Your task to perform on an android device: Add sony triple a to the cart on target, then select checkout. Image 0: 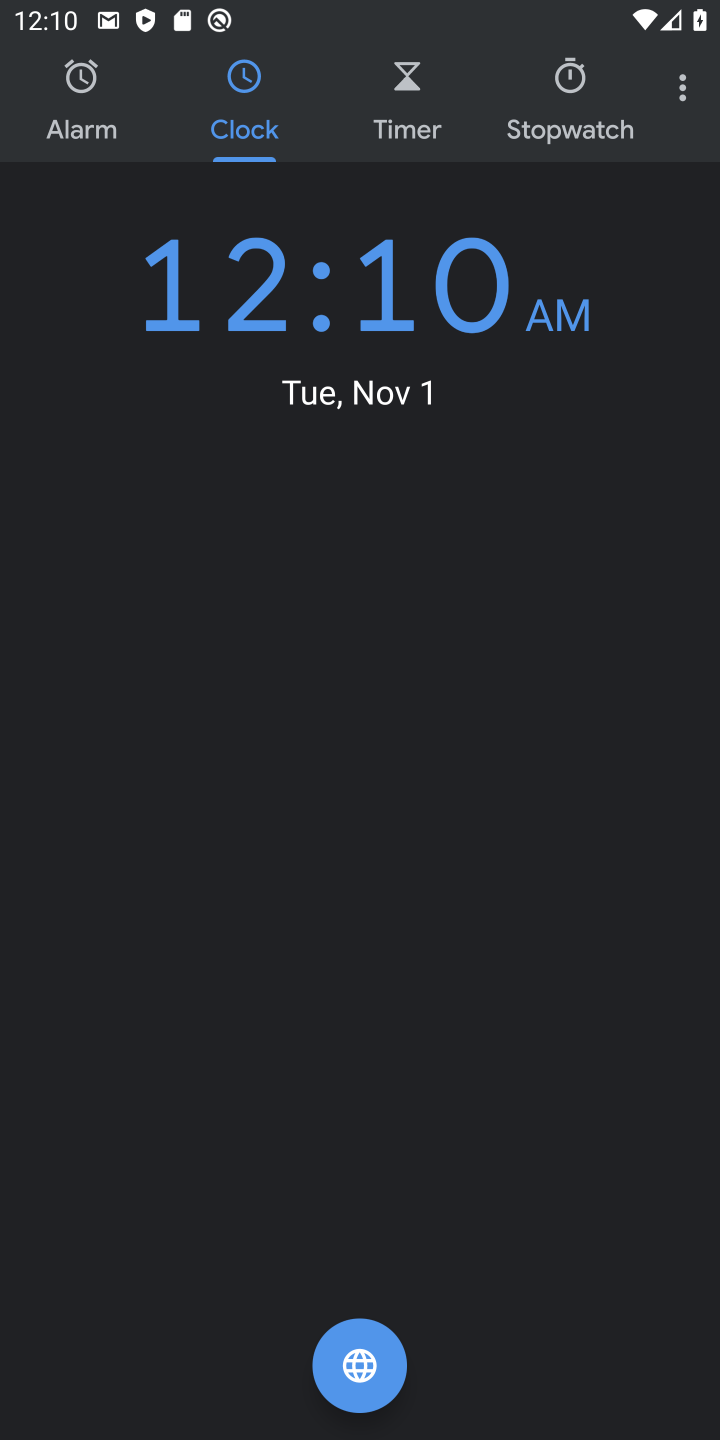
Step 0: press home button
Your task to perform on an android device: Add sony triple a to the cart on target, then select checkout. Image 1: 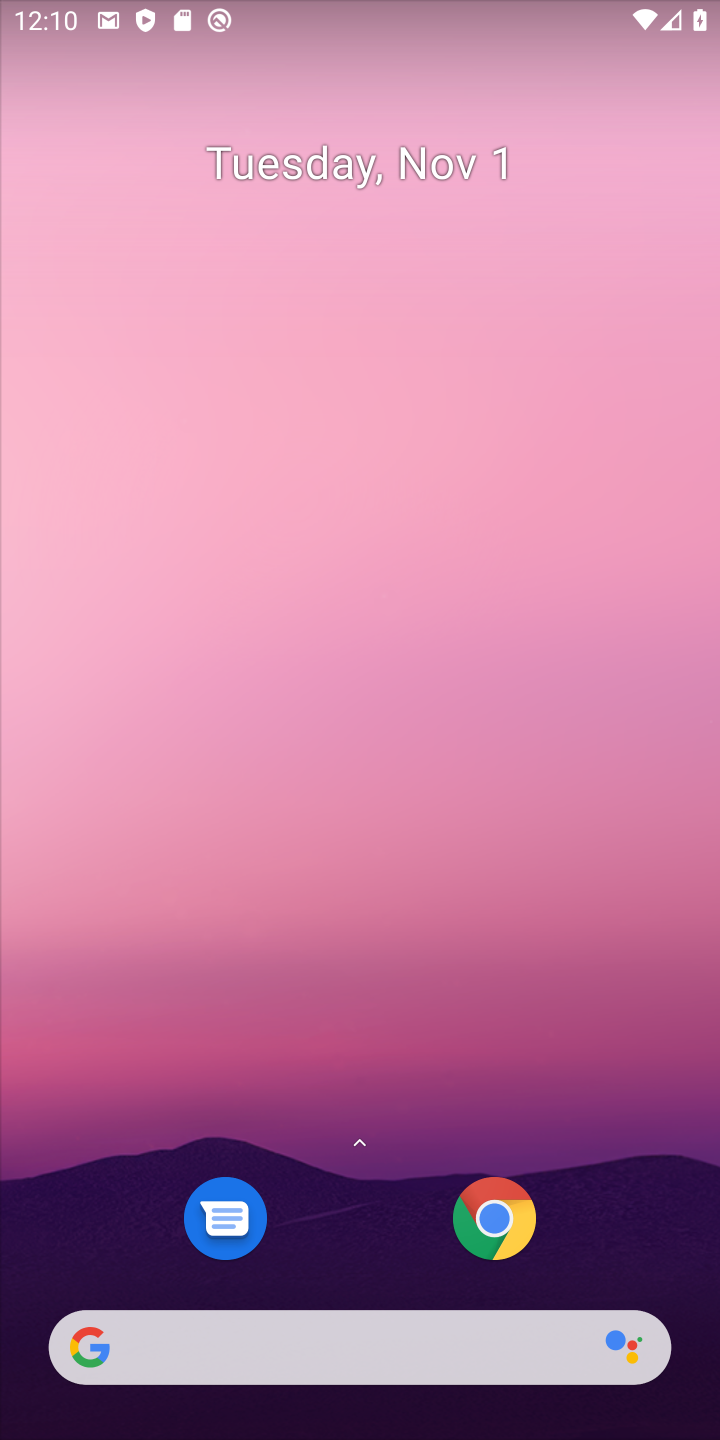
Step 1: drag from (382, 1222) to (520, 41)
Your task to perform on an android device: Add sony triple a to the cart on target, then select checkout. Image 2: 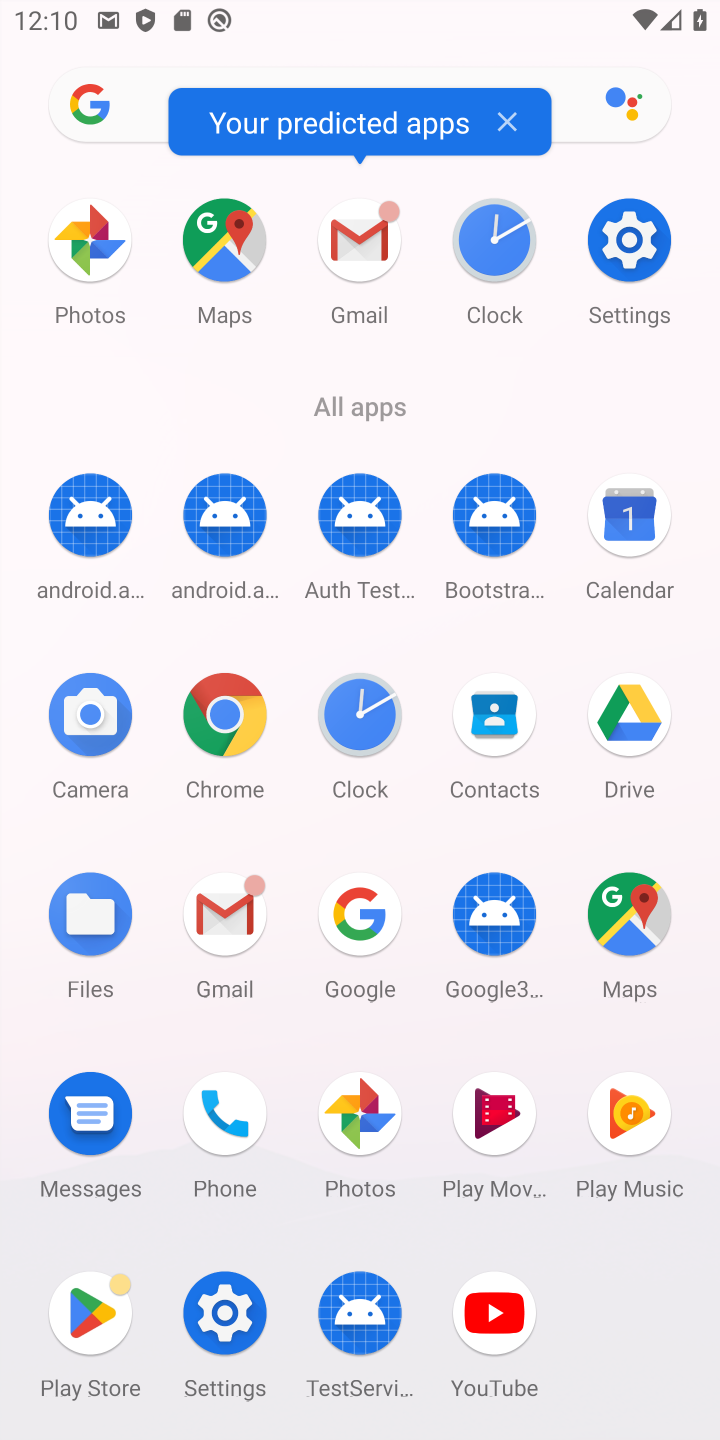
Step 2: click (233, 706)
Your task to perform on an android device: Add sony triple a to the cart on target, then select checkout. Image 3: 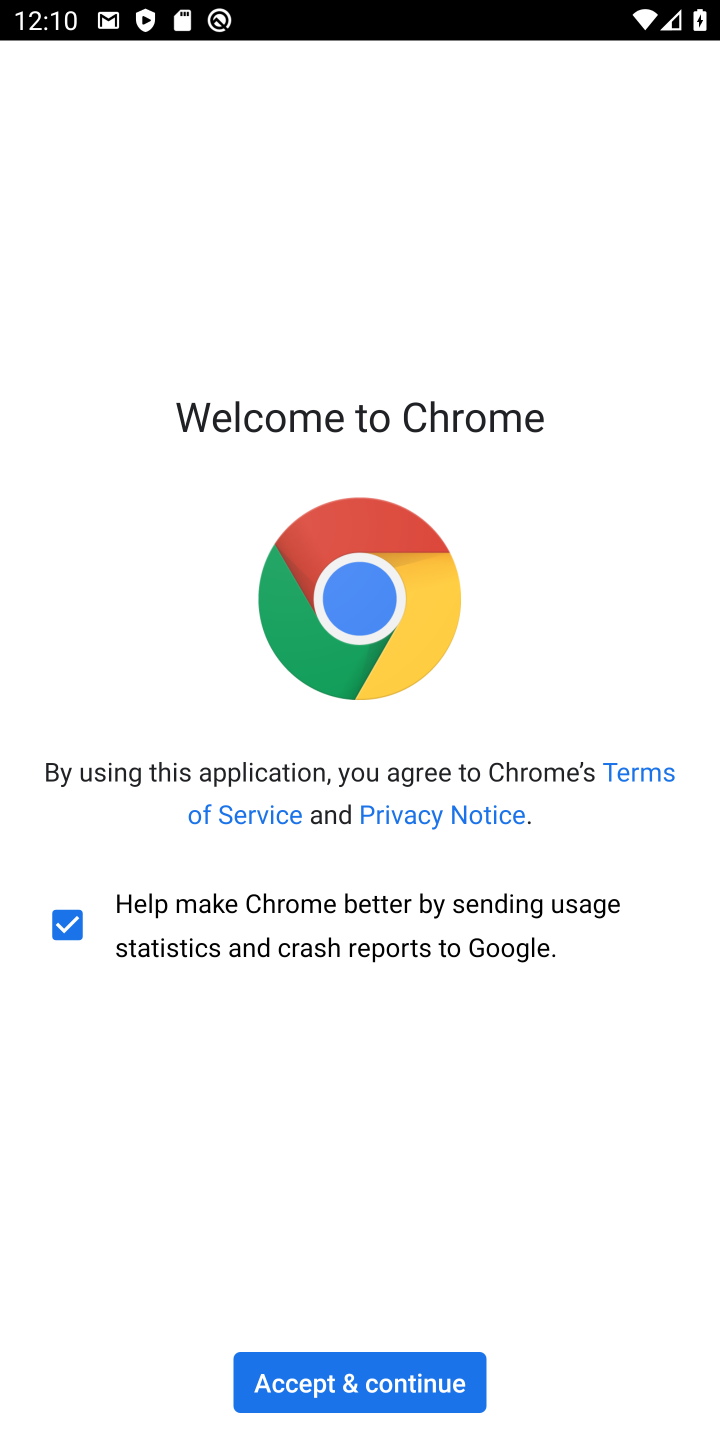
Step 3: click (436, 1379)
Your task to perform on an android device: Add sony triple a to the cart on target, then select checkout. Image 4: 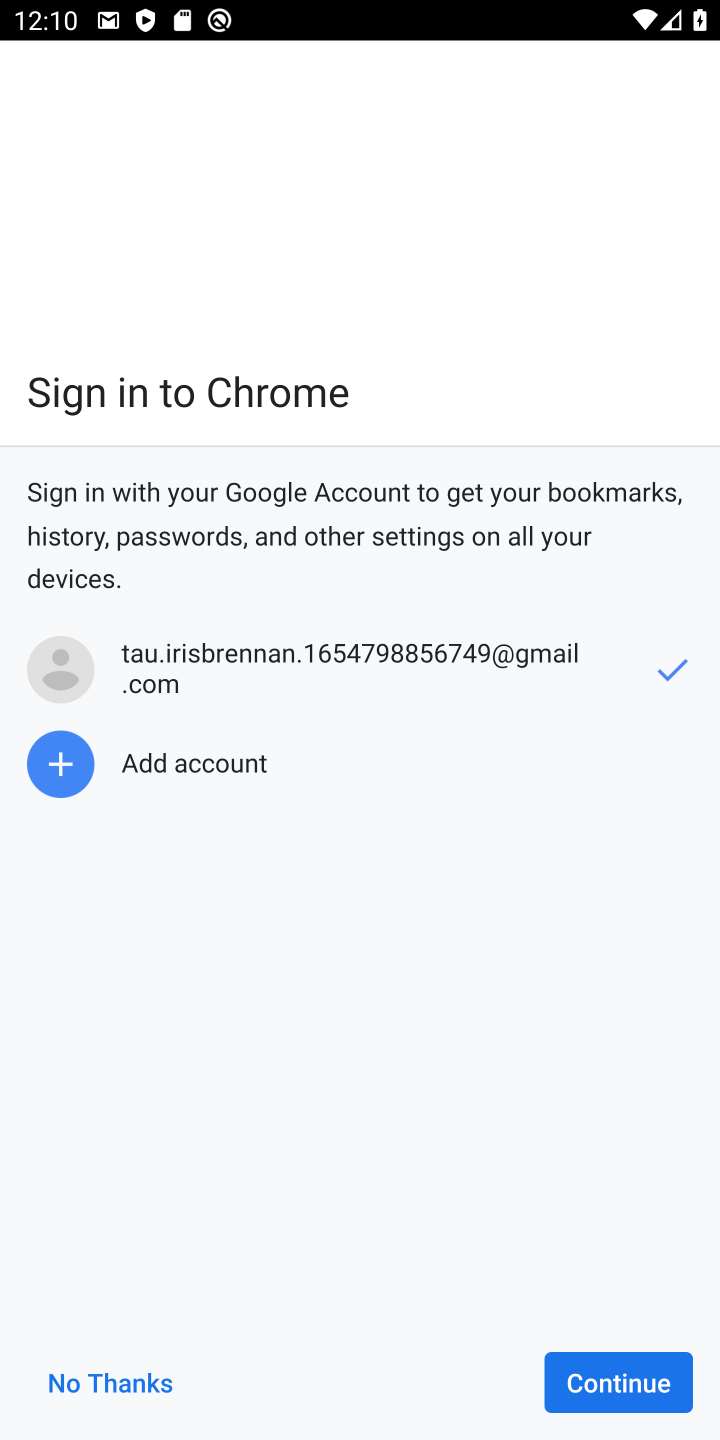
Step 4: click (658, 1384)
Your task to perform on an android device: Add sony triple a to the cart on target, then select checkout. Image 5: 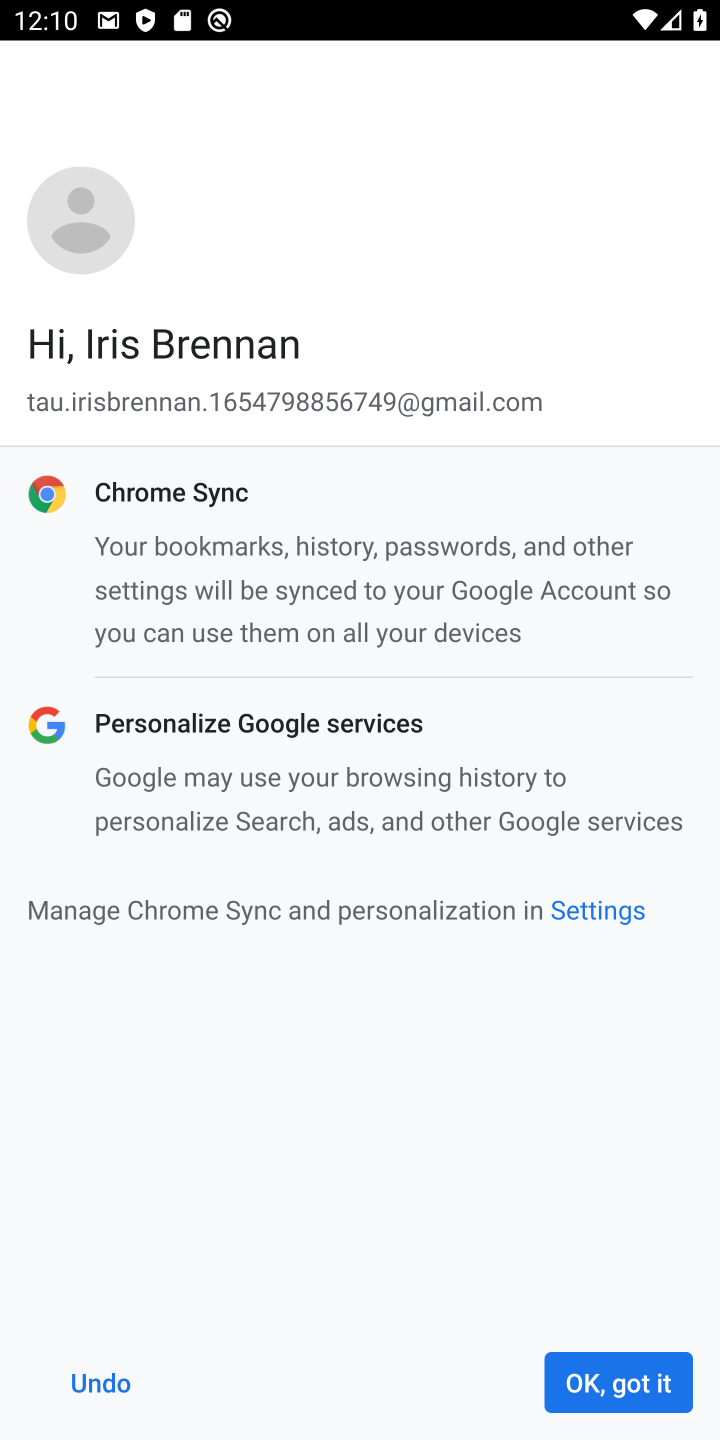
Step 5: click (658, 1384)
Your task to perform on an android device: Add sony triple a to the cart on target, then select checkout. Image 6: 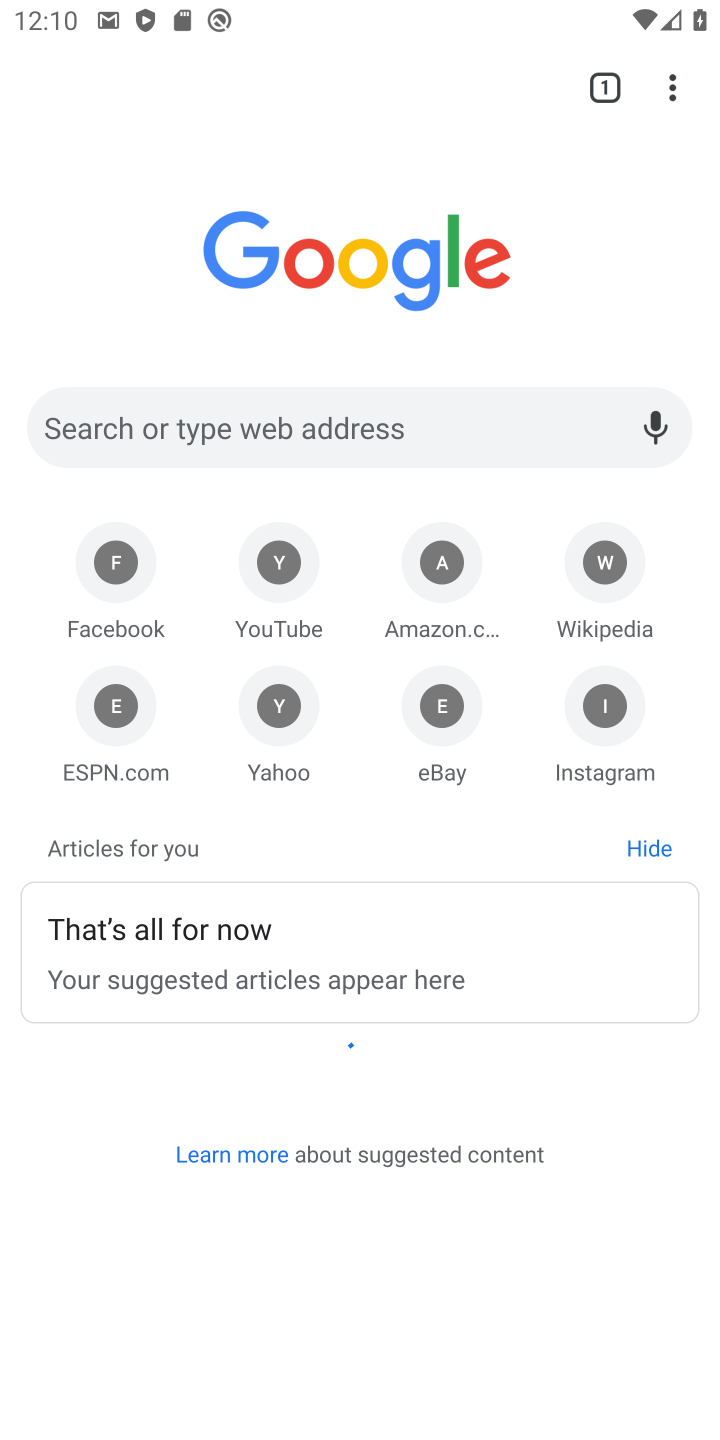
Step 6: click (334, 414)
Your task to perform on an android device: Add sony triple a to the cart on target, then select checkout. Image 7: 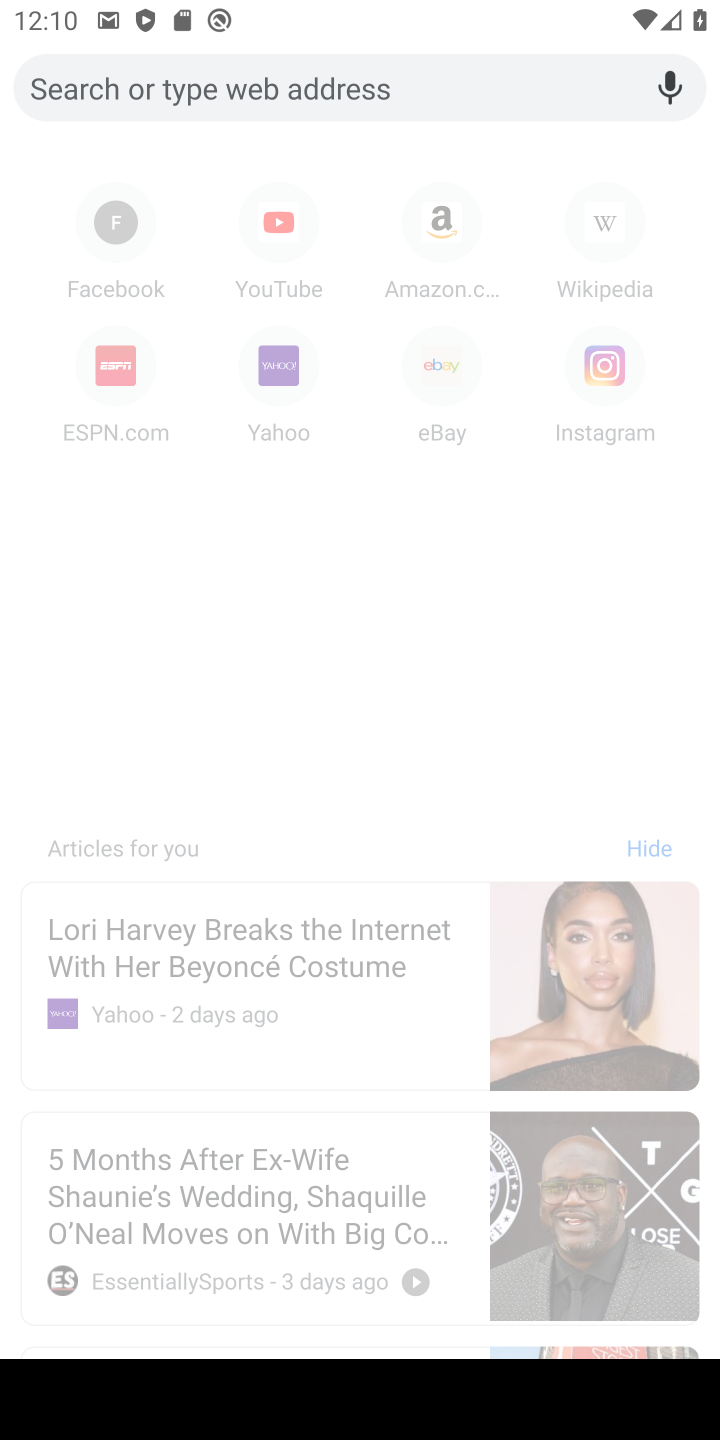
Step 7: type "target"
Your task to perform on an android device: Add sony triple a to the cart on target, then select checkout. Image 8: 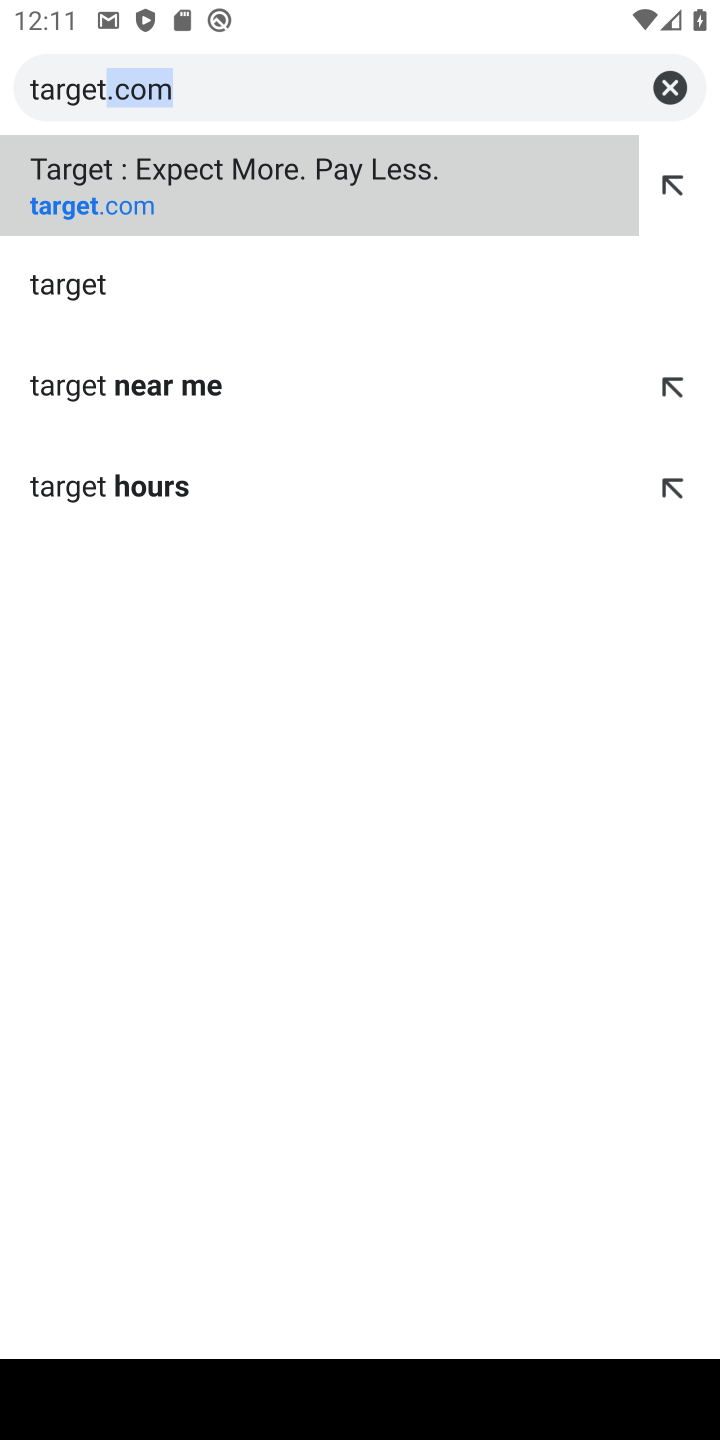
Step 8: click (120, 203)
Your task to perform on an android device: Add sony triple a to the cart on target, then select checkout. Image 9: 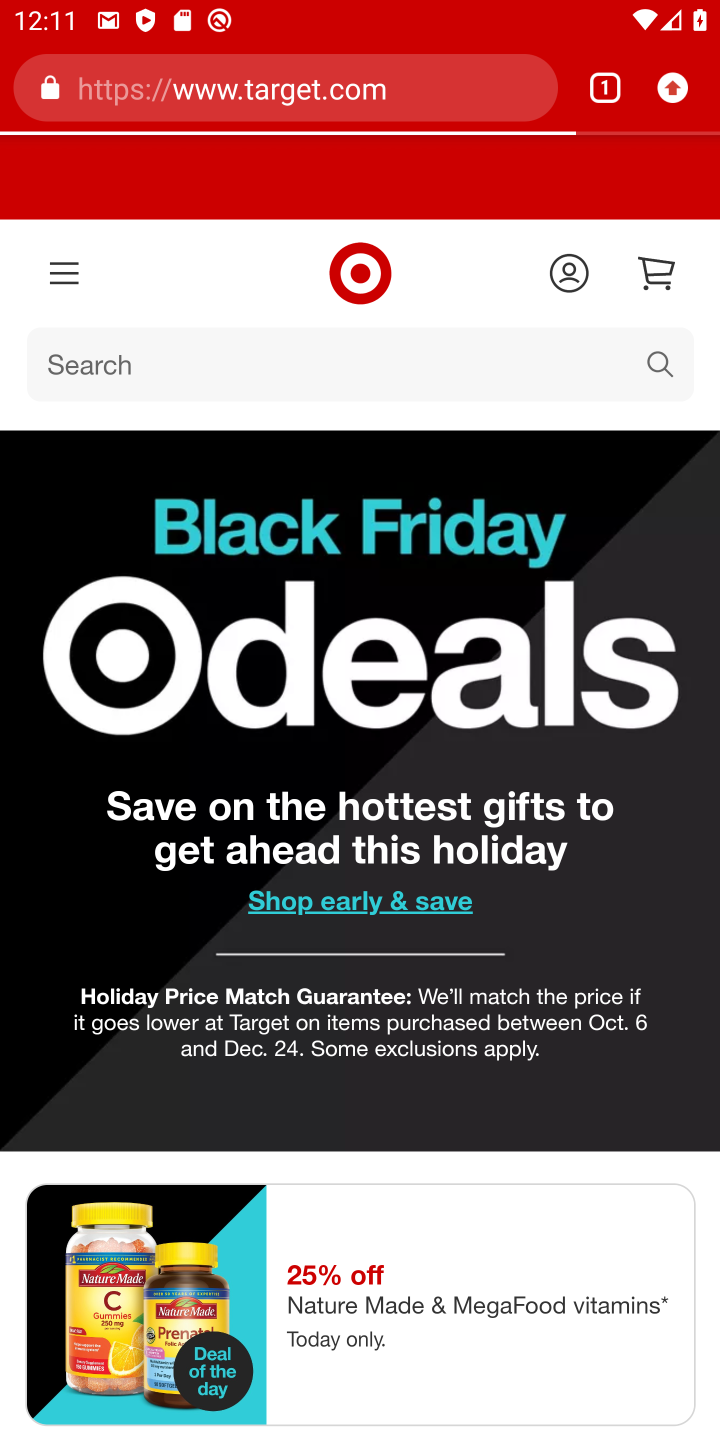
Step 9: drag from (421, 1062) to (366, 667)
Your task to perform on an android device: Add sony triple a to the cart on target, then select checkout. Image 10: 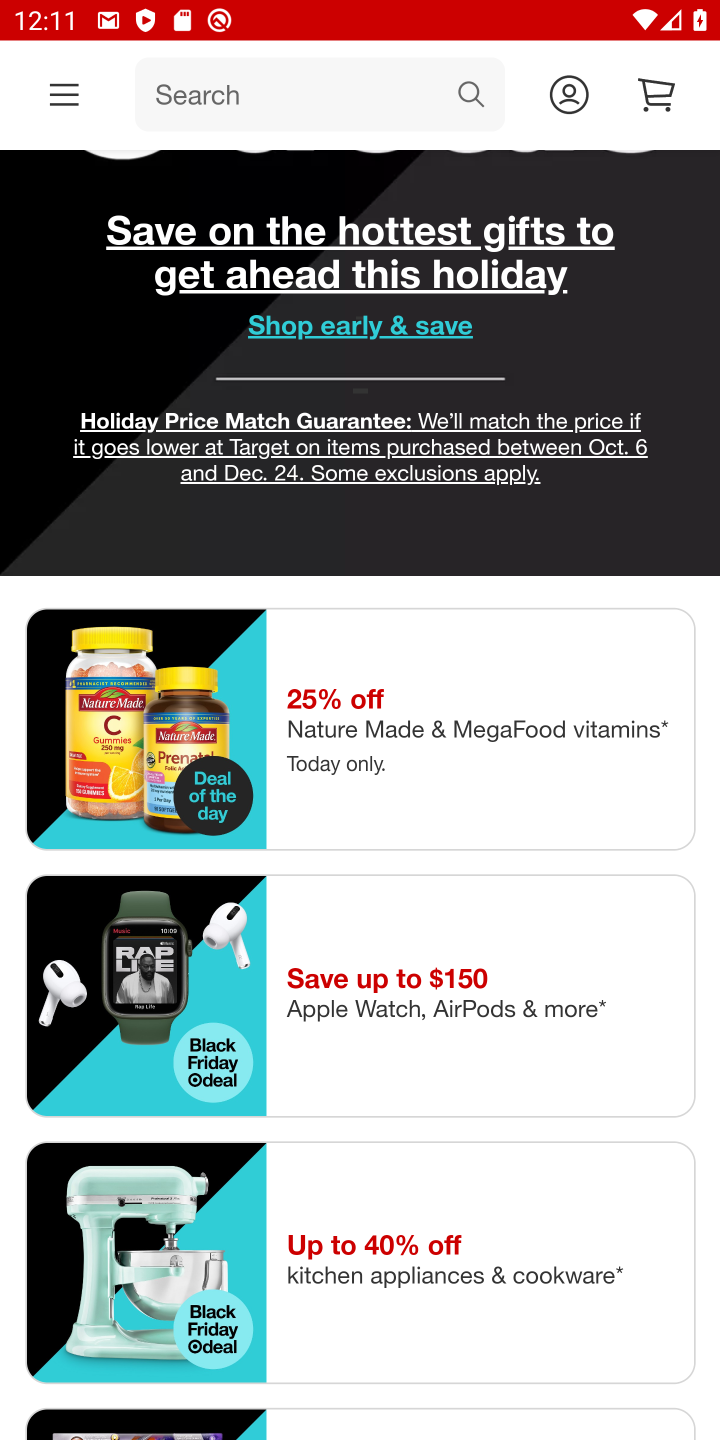
Step 10: click (403, 76)
Your task to perform on an android device: Add sony triple a to the cart on target, then select checkout. Image 11: 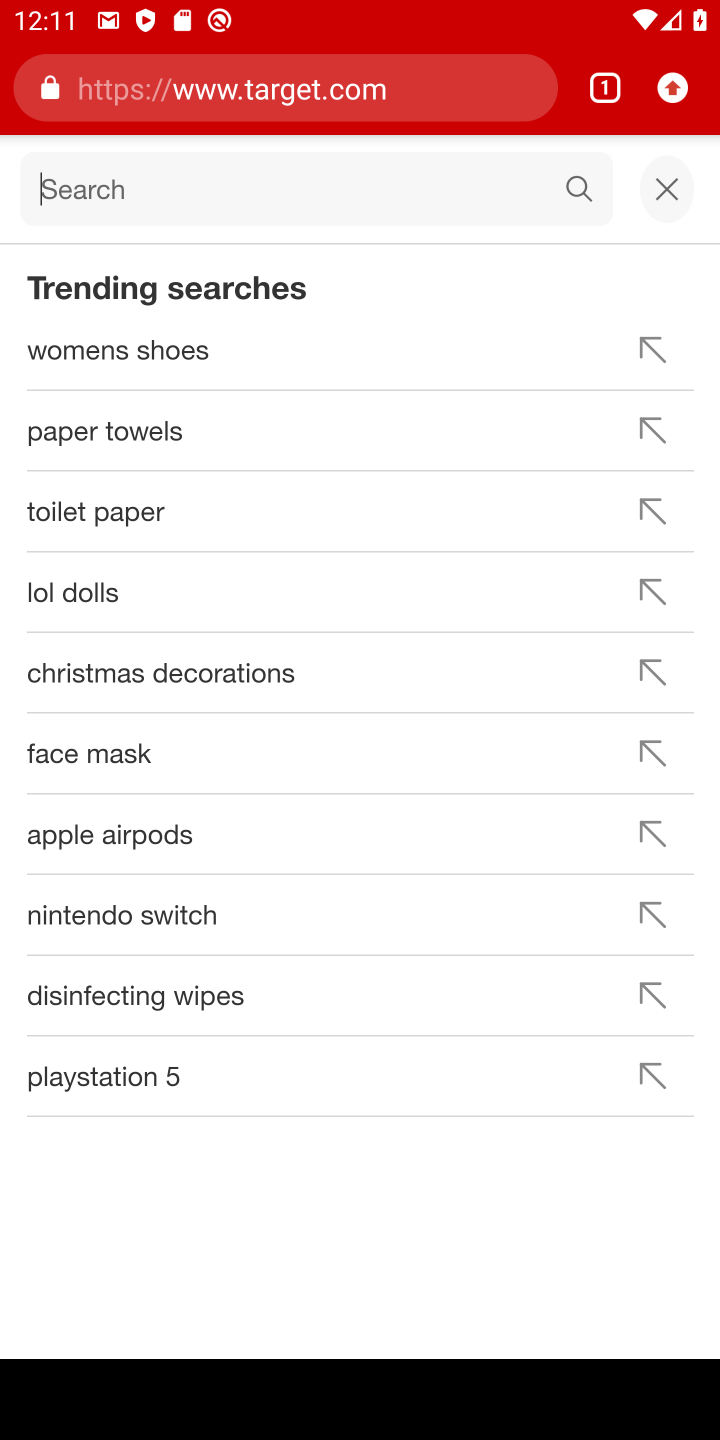
Step 11: type "sony triple"
Your task to perform on an android device: Add sony triple a to the cart on target, then select checkout. Image 12: 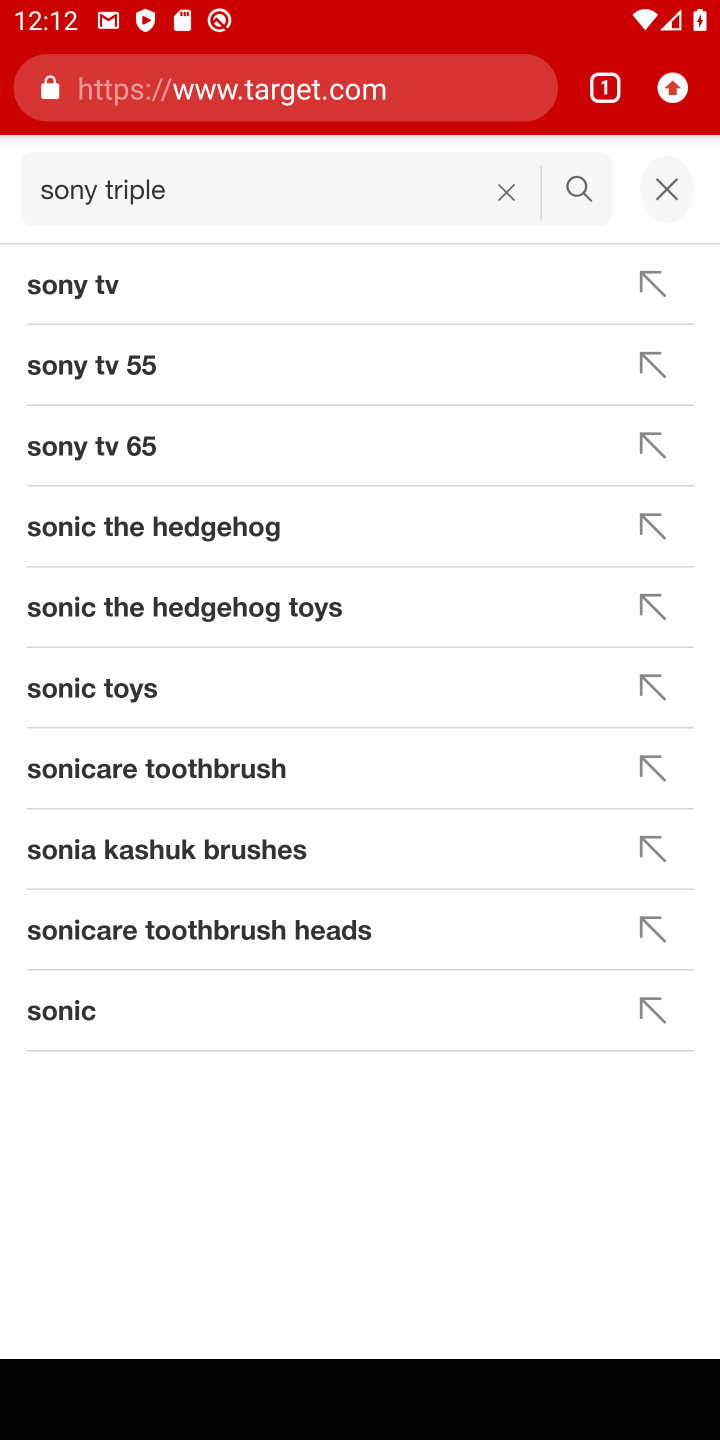
Step 12: type "a"
Your task to perform on an android device: Add sony triple a to the cart on target, then select checkout. Image 13: 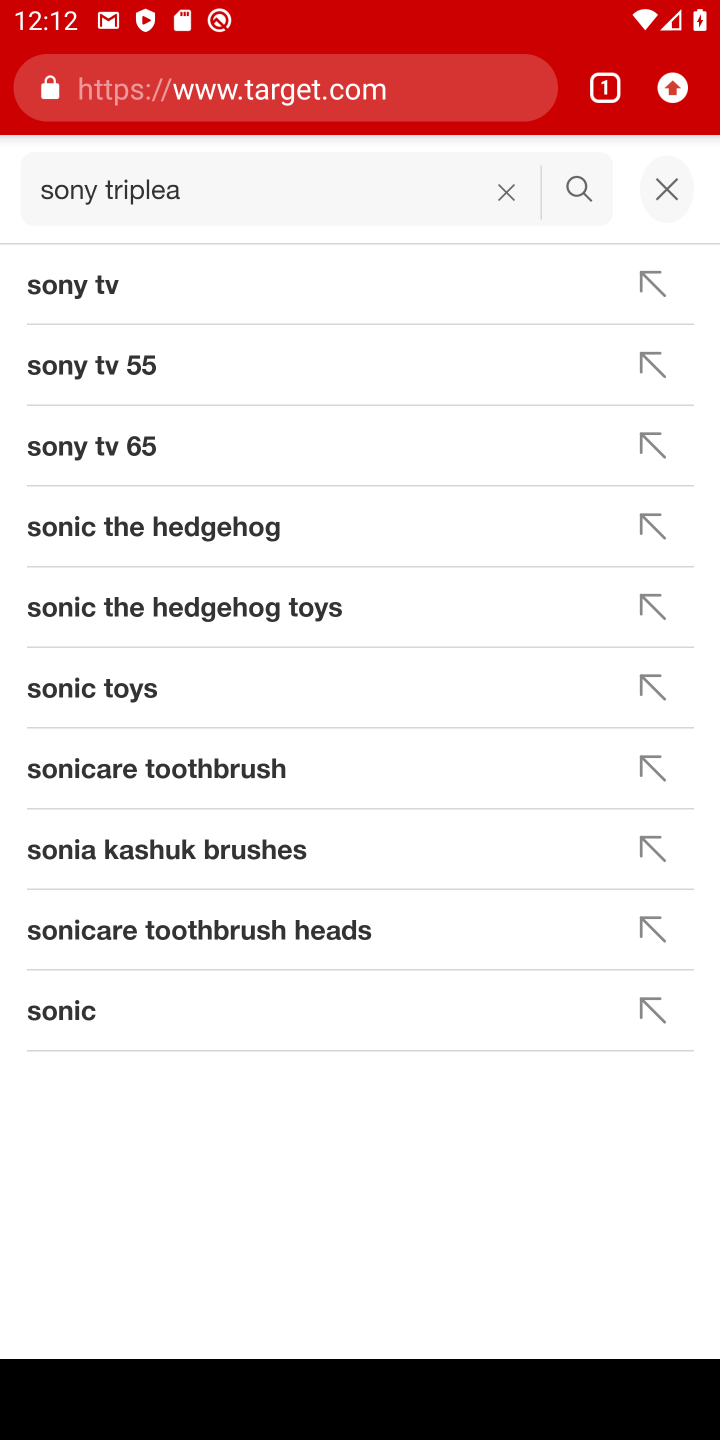
Step 13: click (579, 200)
Your task to perform on an android device: Add sony triple a to the cart on target, then select checkout. Image 14: 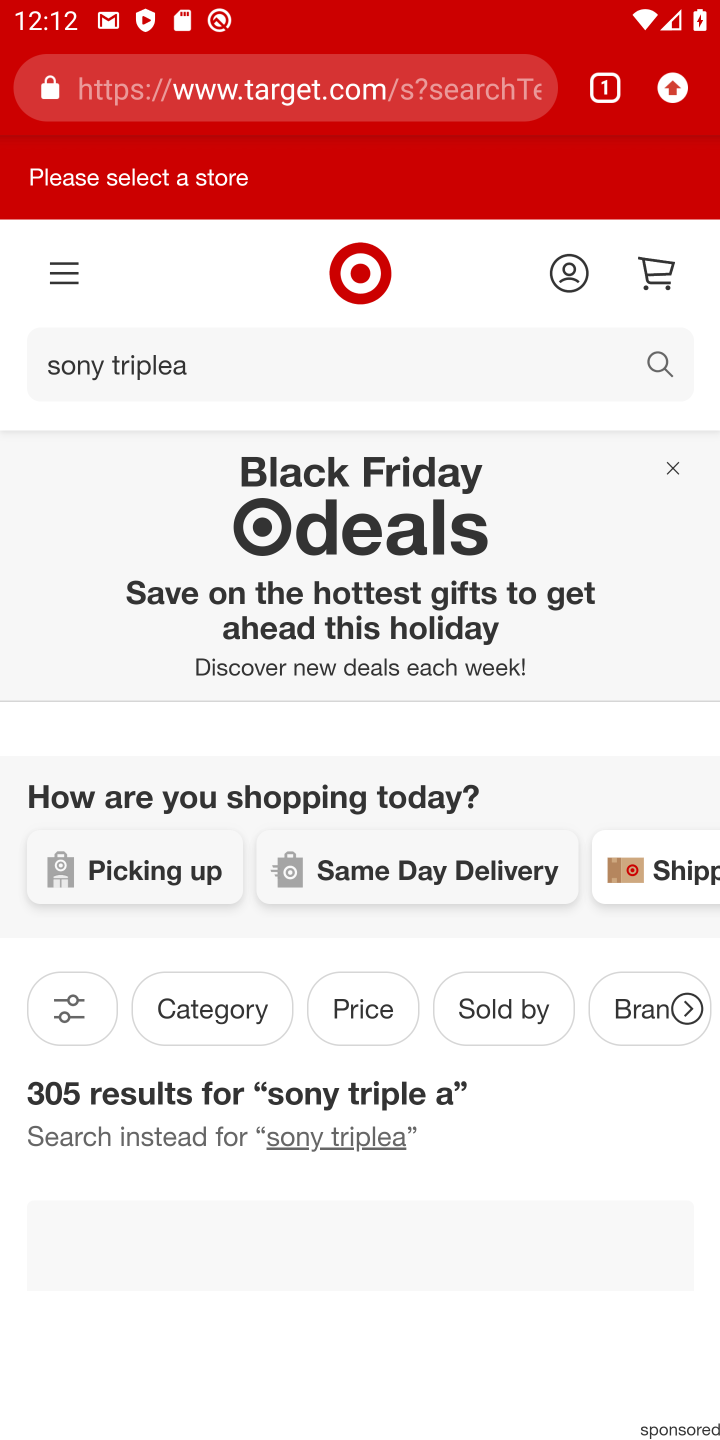
Step 14: drag from (323, 1075) to (338, 512)
Your task to perform on an android device: Add sony triple a to the cart on target, then select checkout. Image 15: 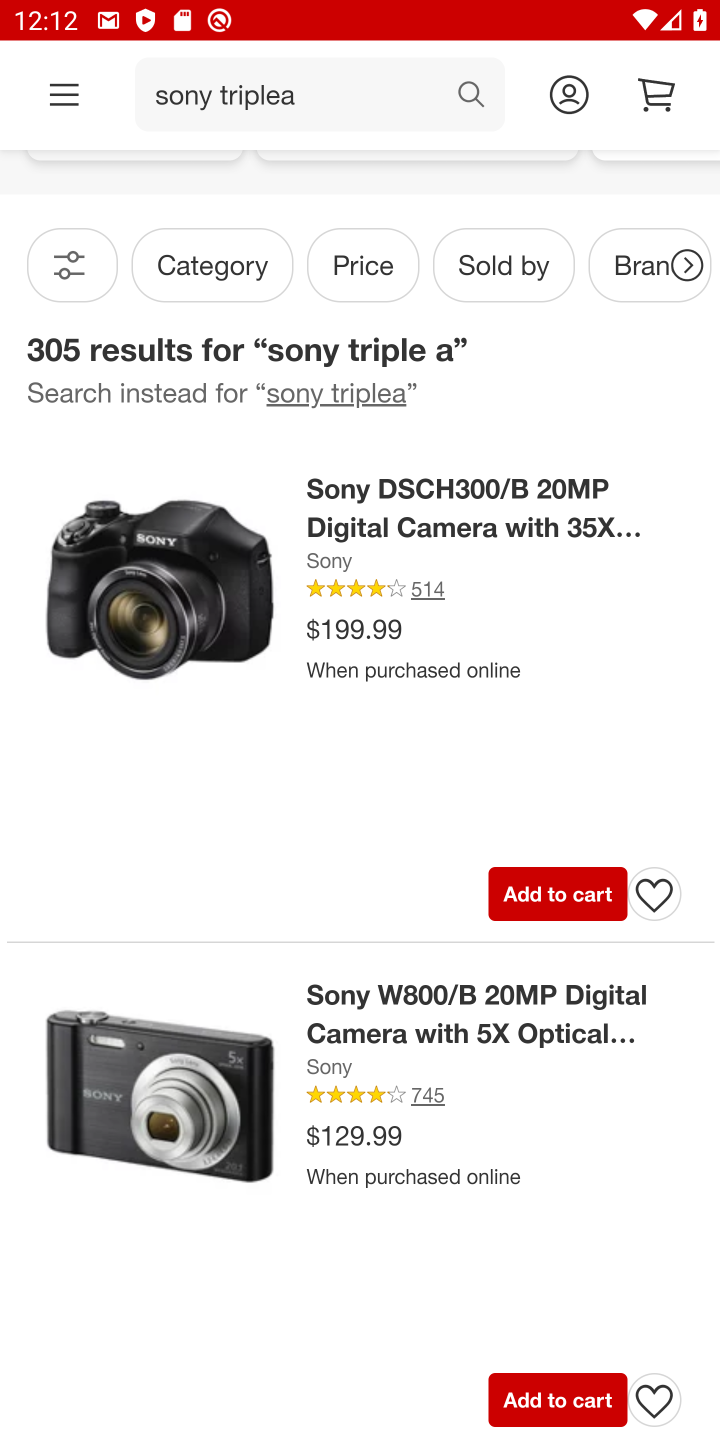
Step 15: drag from (548, 381) to (496, 688)
Your task to perform on an android device: Add sony triple a to the cart on target, then select checkout. Image 16: 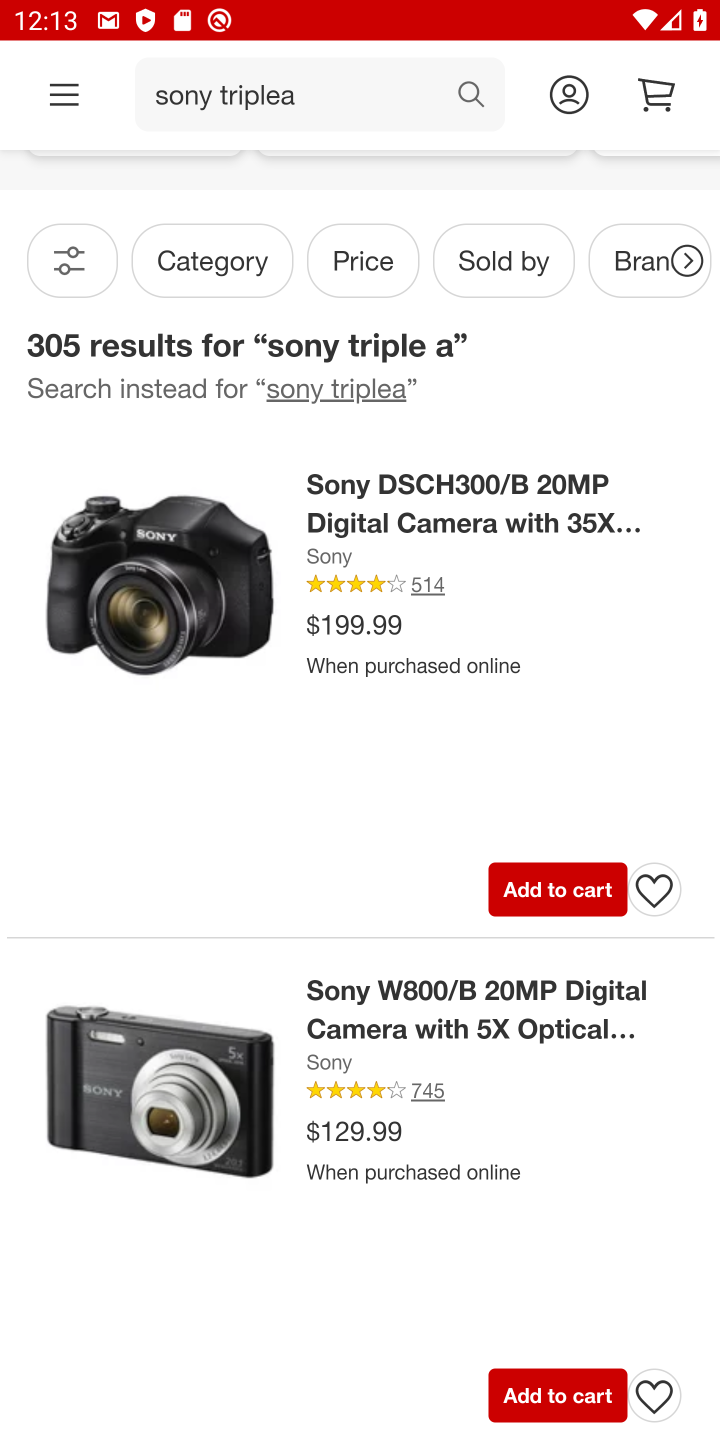
Step 16: click (551, 890)
Your task to perform on an android device: Add sony triple a to the cart on target, then select checkout. Image 17: 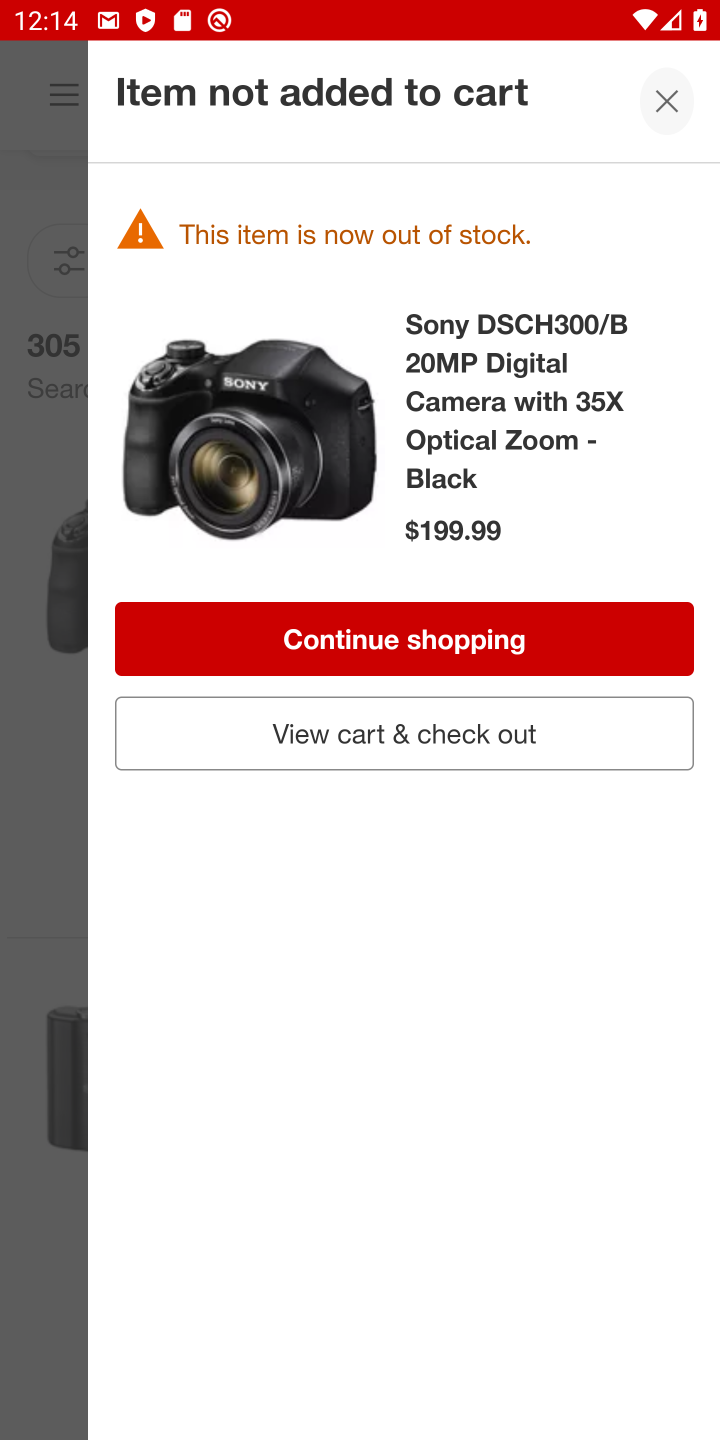
Step 17: task complete